Your task to perform on an android device: change the clock display to digital Image 0: 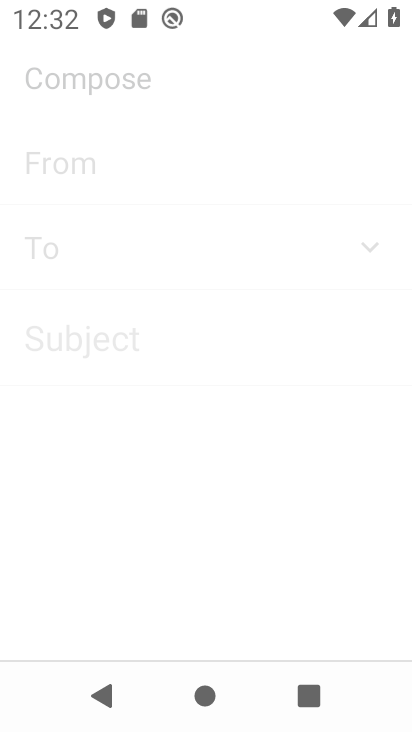
Step 0: drag from (357, 548) to (329, 116)
Your task to perform on an android device: change the clock display to digital Image 1: 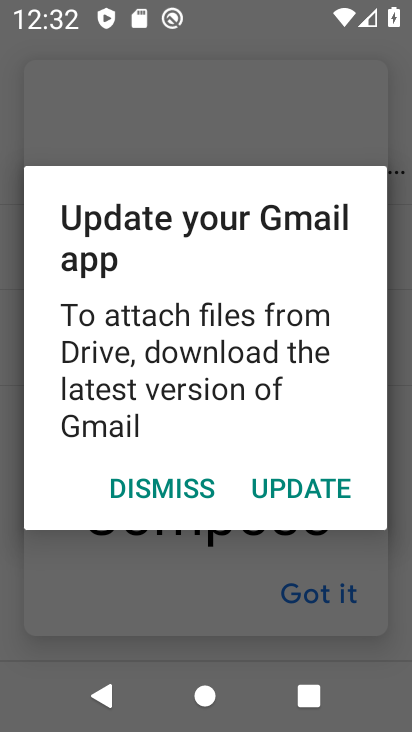
Step 1: press home button
Your task to perform on an android device: change the clock display to digital Image 2: 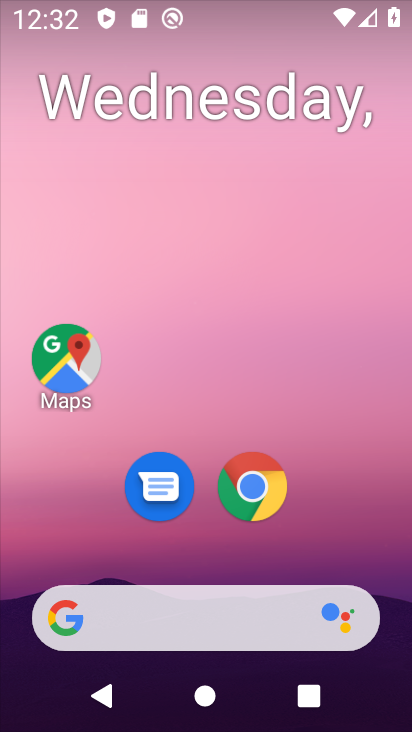
Step 2: drag from (358, 540) to (365, 110)
Your task to perform on an android device: change the clock display to digital Image 3: 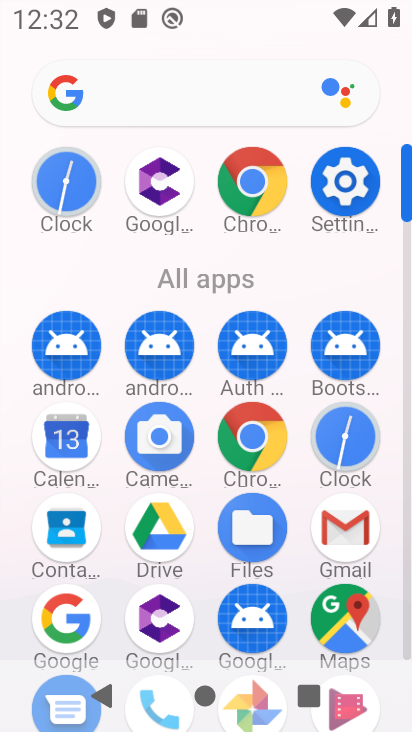
Step 3: click (358, 434)
Your task to perform on an android device: change the clock display to digital Image 4: 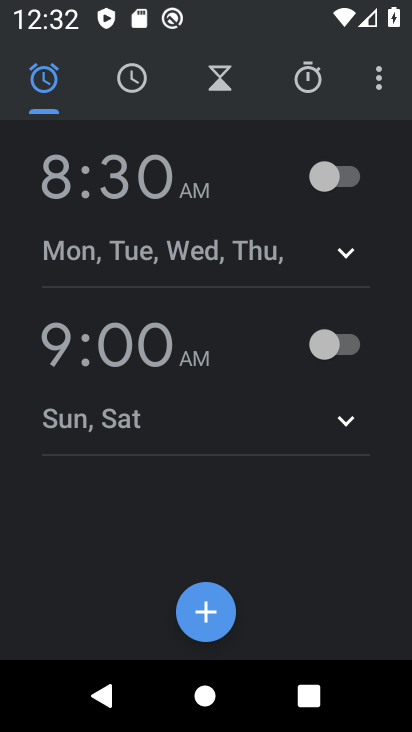
Step 4: click (377, 91)
Your task to perform on an android device: change the clock display to digital Image 5: 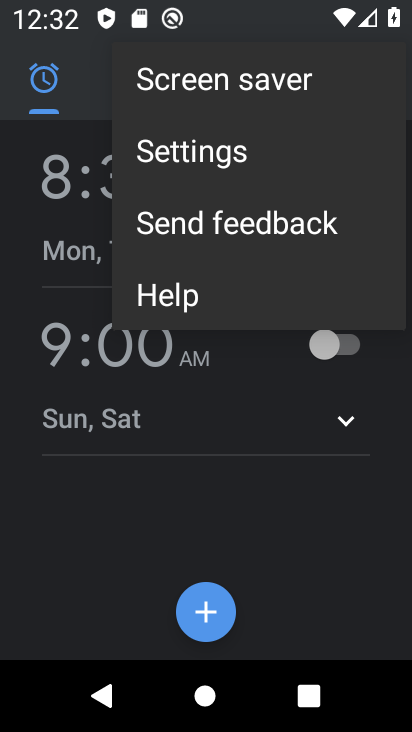
Step 5: click (206, 155)
Your task to perform on an android device: change the clock display to digital Image 6: 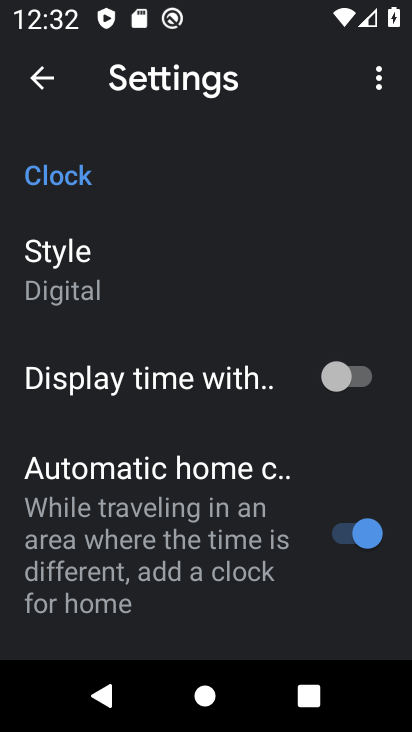
Step 6: task complete